Your task to perform on an android device: show emergency info Image 0: 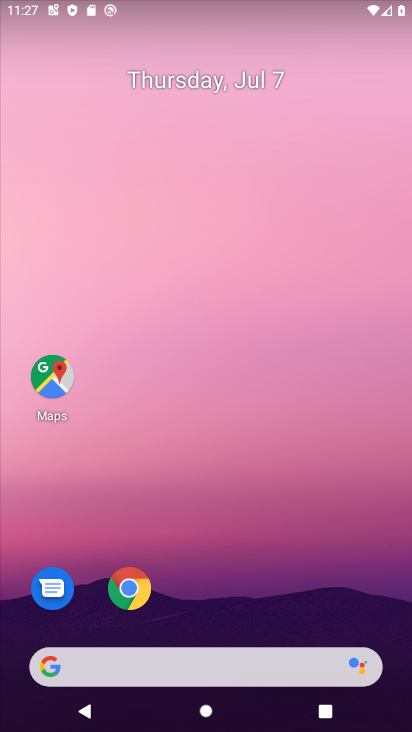
Step 0: drag from (220, 531) to (143, 67)
Your task to perform on an android device: show emergency info Image 1: 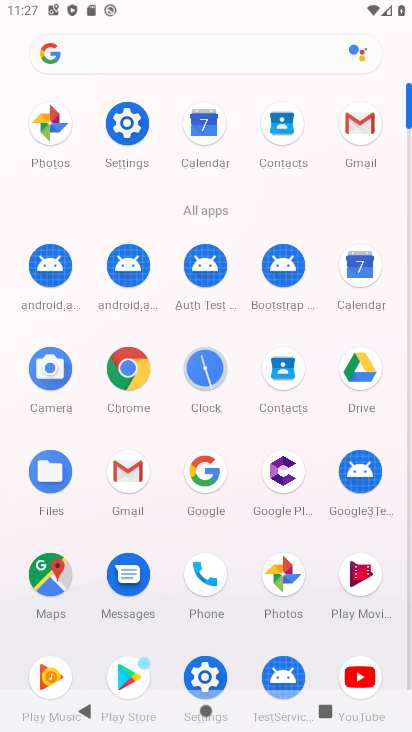
Step 1: click (198, 666)
Your task to perform on an android device: show emergency info Image 2: 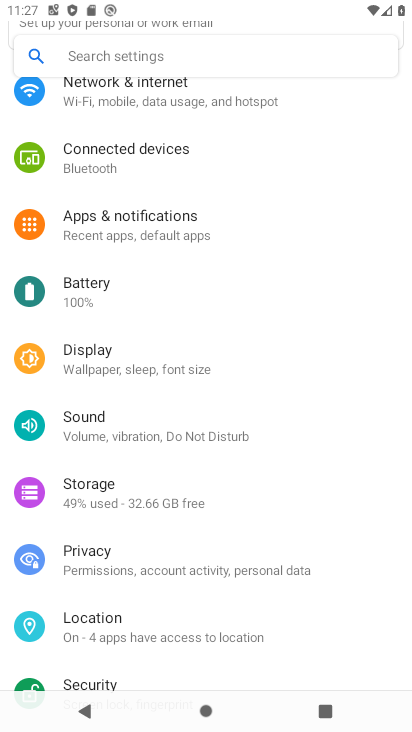
Step 2: drag from (248, 577) to (200, 281)
Your task to perform on an android device: show emergency info Image 3: 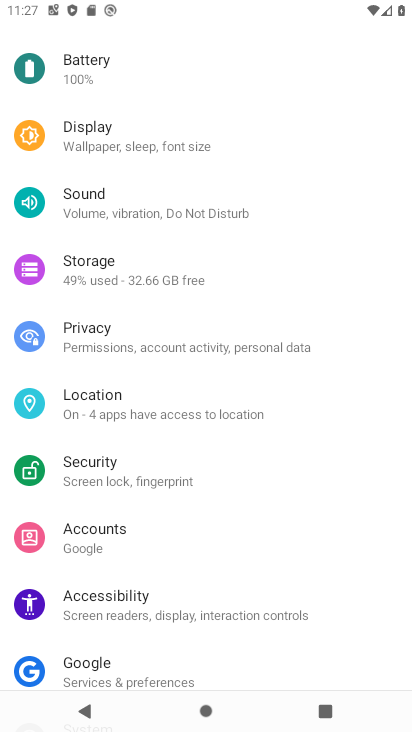
Step 3: drag from (232, 541) to (196, 214)
Your task to perform on an android device: show emergency info Image 4: 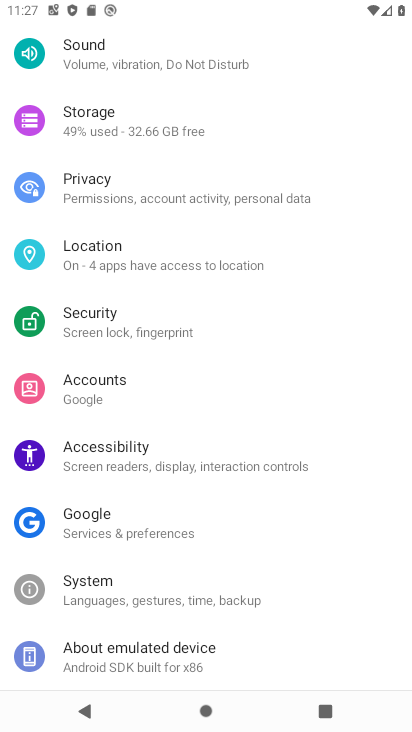
Step 4: click (128, 647)
Your task to perform on an android device: show emergency info Image 5: 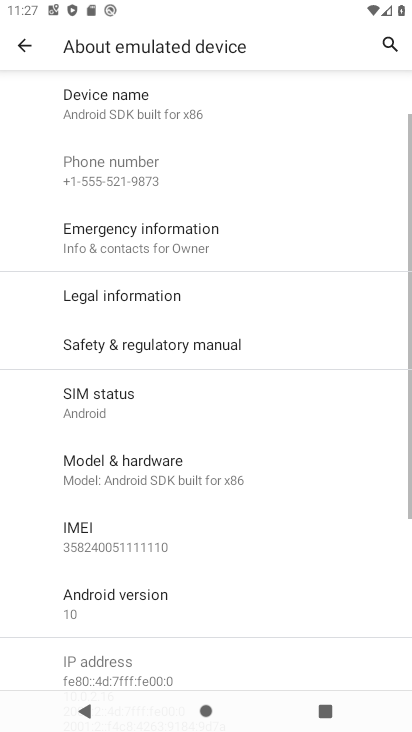
Step 5: click (105, 232)
Your task to perform on an android device: show emergency info Image 6: 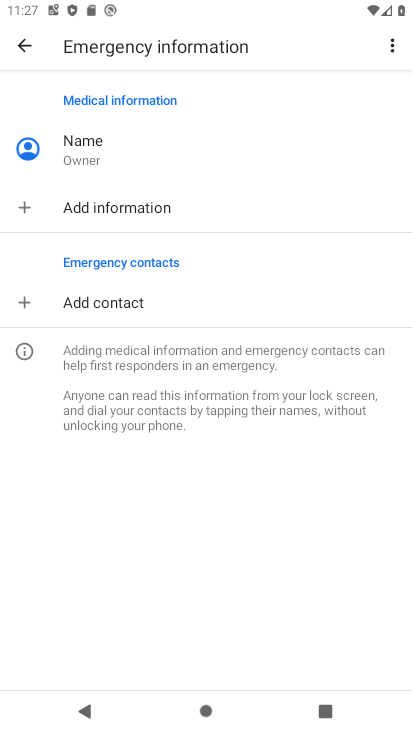
Step 6: task complete